Your task to perform on an android device: Open calendar and show me the fourth week of next month Image 0: 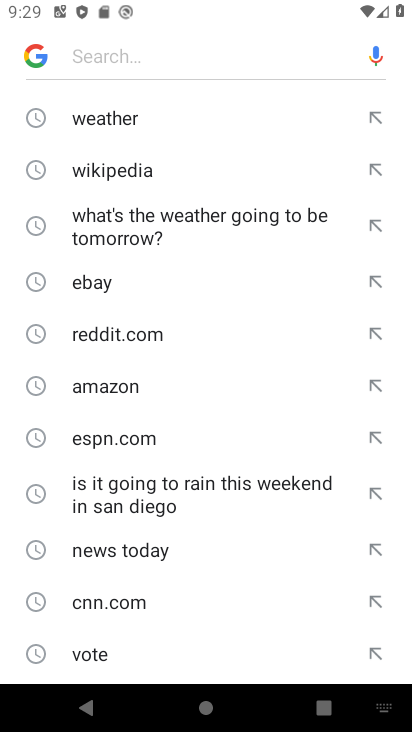
Step 0: press home button
Your task to perform on an android device: Open calendar and show me the fourth week of next month Image 1: 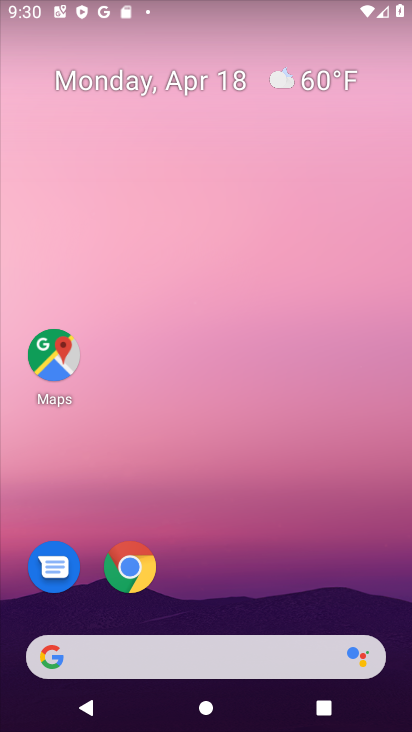
Step 1: drag from (189, 365) to (227, 27)
Your task to perform on an android device: Open calendar and show me the fourth week of next month Image 2: 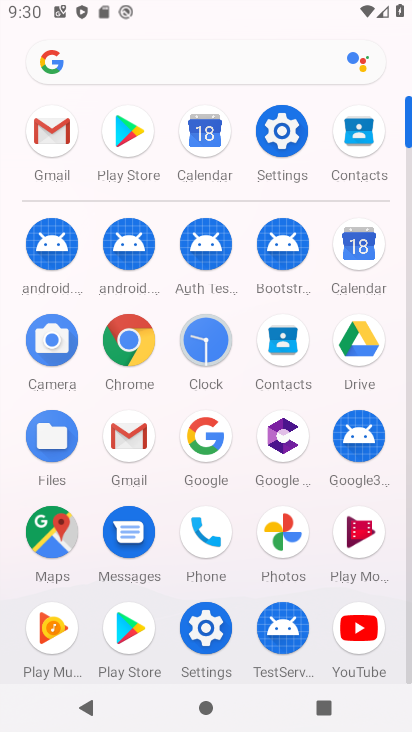
Step 2: click (360, 250)
Your task to perform on an android device: Open calendar and show me the fourth week of next month Image 3: 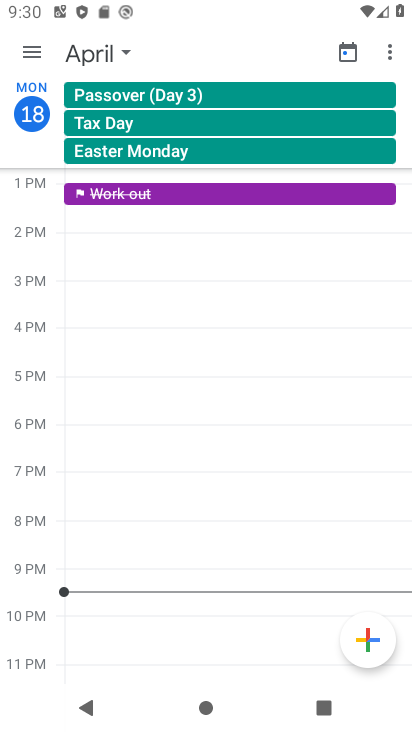
Step 3: click (29, 56)
Your task to perform on an android device: Open calendar and show me the fourth week of next month Image 4: 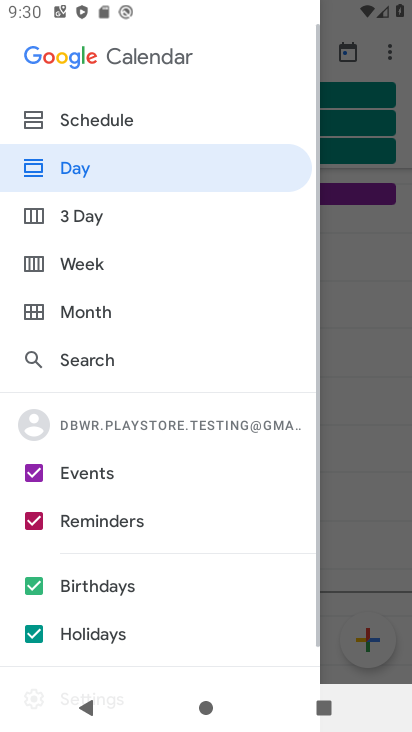
Step 4: click (382, 319)
Your task to perform on an android device: Open calendar and show me the fourth week of next month Image 5: 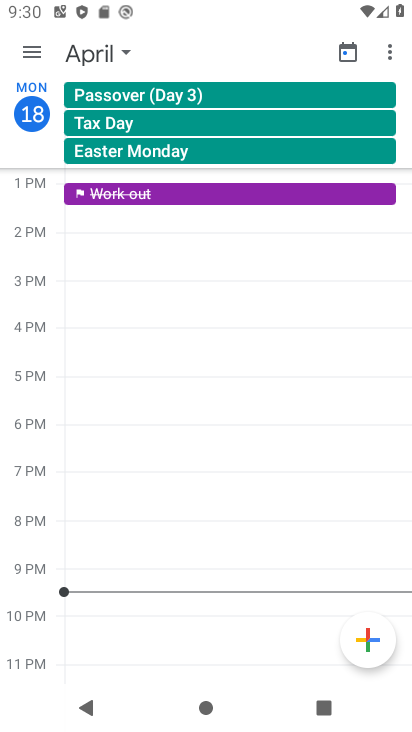
Step 5: click (122, 44)
Your task to perform on an android device: Open calendar and show me the fourth week of next month Image 6: 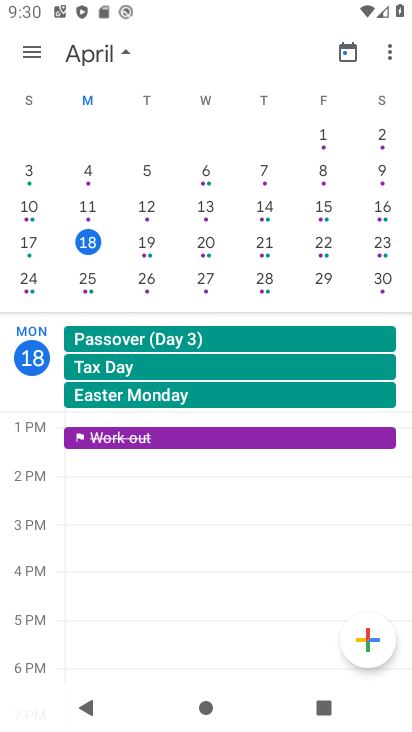
Step 6: drag from (295, 226) to (8, 212)
Your task to perform on an android device: Open calendar and show me the fourth week of next month Image 7: 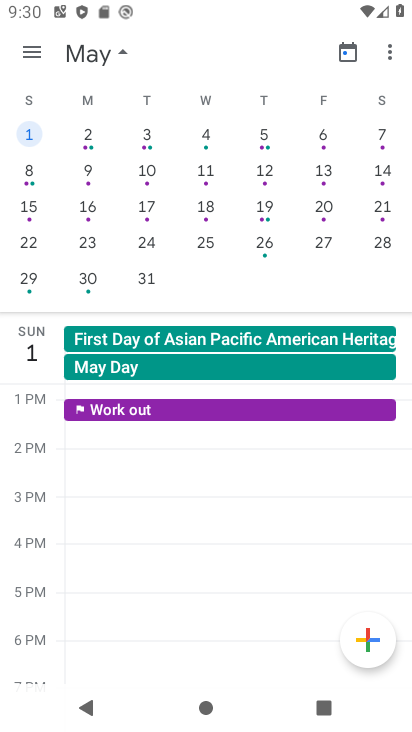
Step 7: click (28, 51)
Your task to perform on an android device: Open calendar and show me the fourth week of next month Image 8: 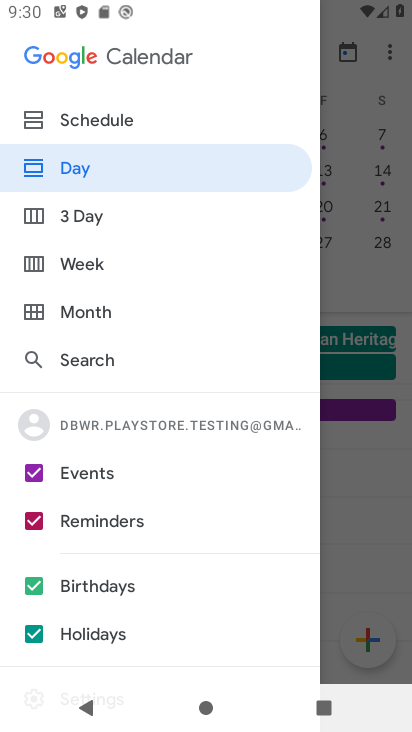
Step 8: click (109, 263)
Your task to perform on an android device: Open calendar and show me the fourth week of next month Image 9: 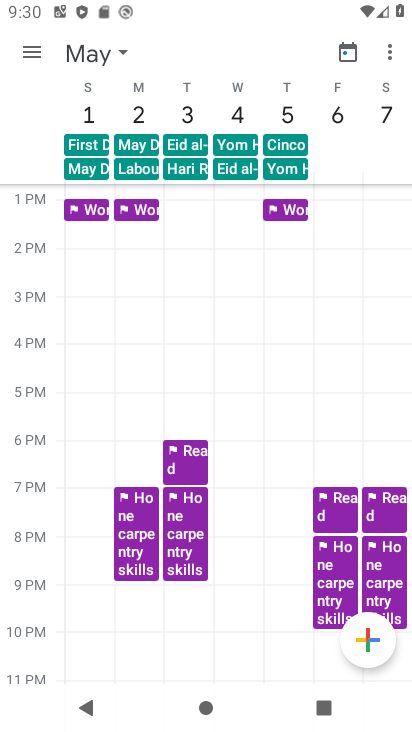
Step 9: task complete